Your task to perform on an android device: Go to Wikipedia Image 0: 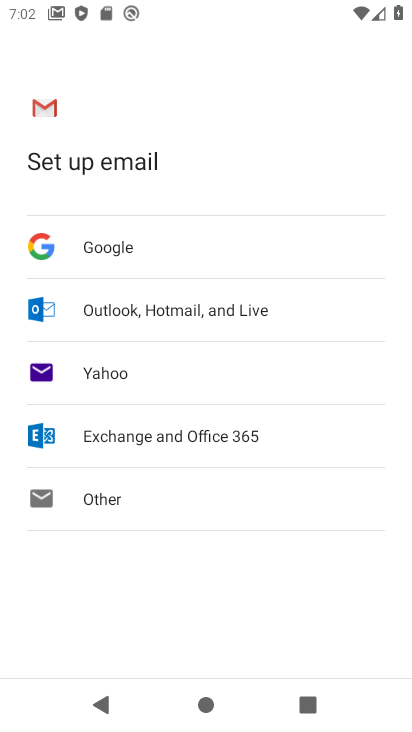
Step 0: press home button
Your task to perform on an android device: Go to Wikipedia Image 1: 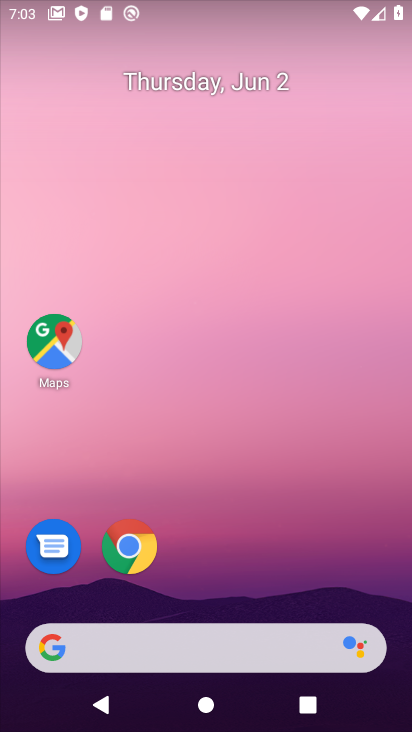
Step 1: click (131, 548)
Your task to perform on an android device: Go to Wikipedia Image 2: 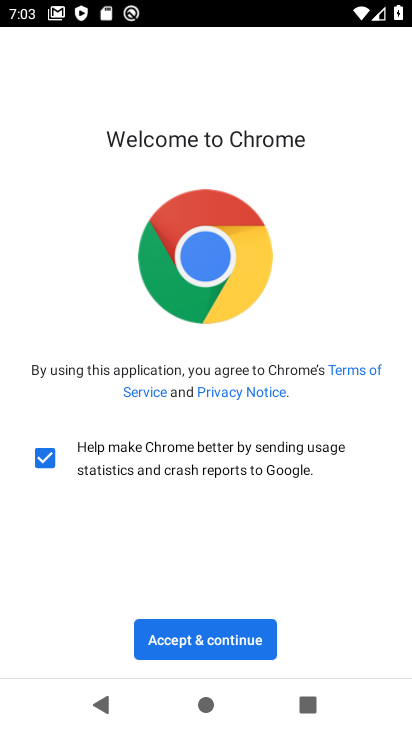
Step 2: click (227, 653)
Your task to perform on an android device: Go to Wikipedia Image 3: 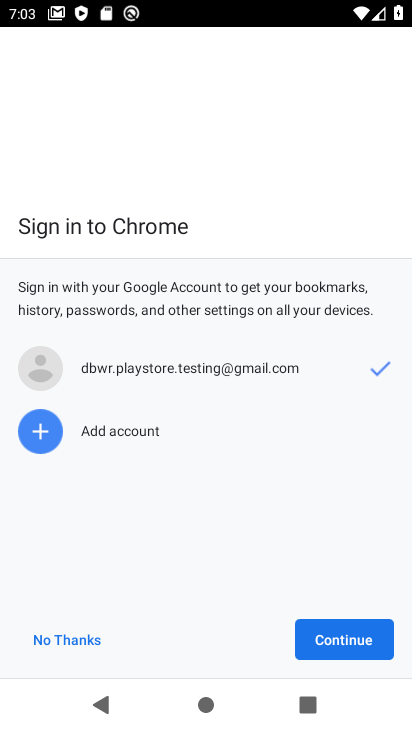
Step 3: click (360, 641)
Your task to perform on an android device: Go to Wikipedia Image 4: 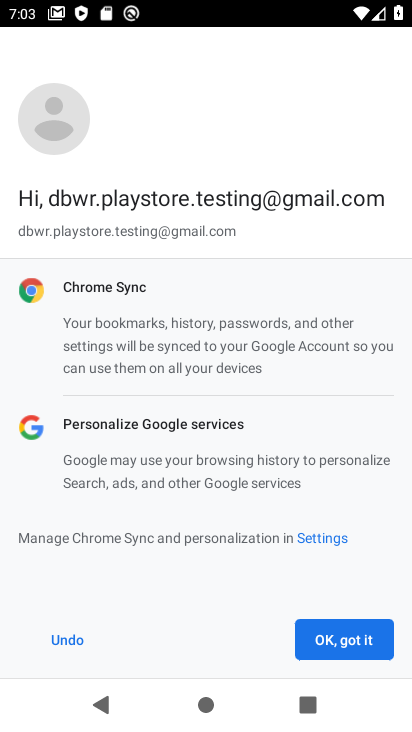
Step 4: click (360, 641)
Your task to perform on an android device: Go to Wikipedia Image 5: 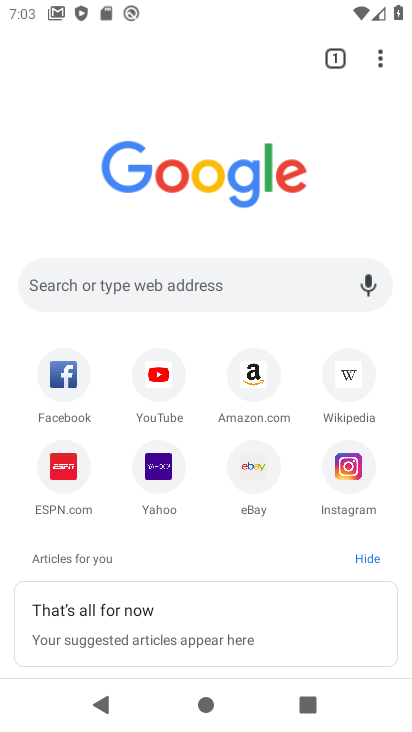
Step 5: click (350, 350)
Your task to perform on an android device: Go to Wikipedia Image 6: 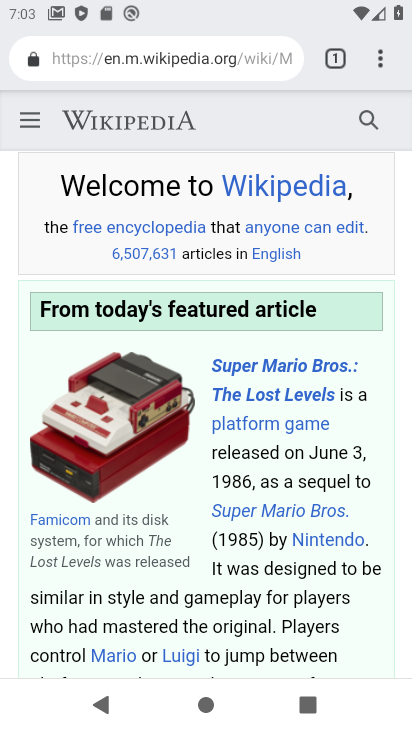
Step 6: task complete